Your task to perform on an android device: Open Google Chrome and open the bookmarks view Image 0: 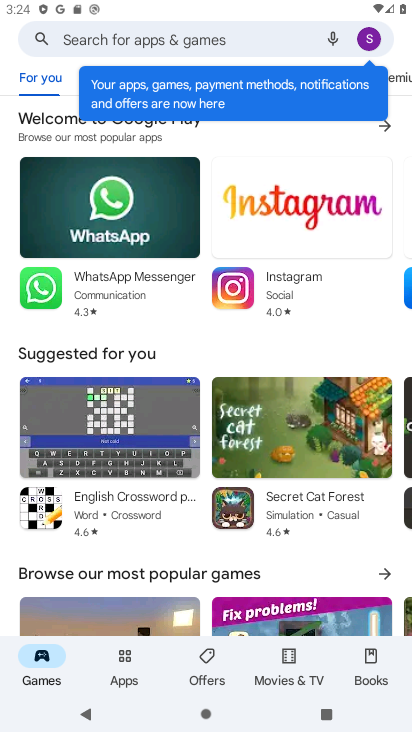
Step 0: task complete